Your task to perform on an android device: Open the Play Movies app and select the watchlist tab. Image 0: 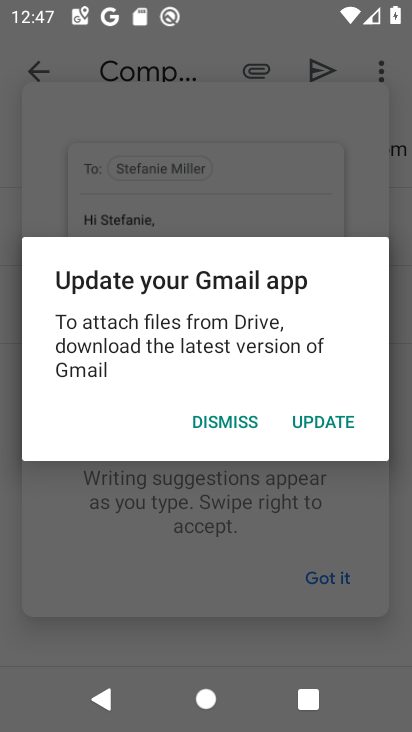
Step 0: drag from (271, 503) to (398, 282)
Your task to perform on an android device: Open the Play Movies app and select the watchlist tab. Image 1: 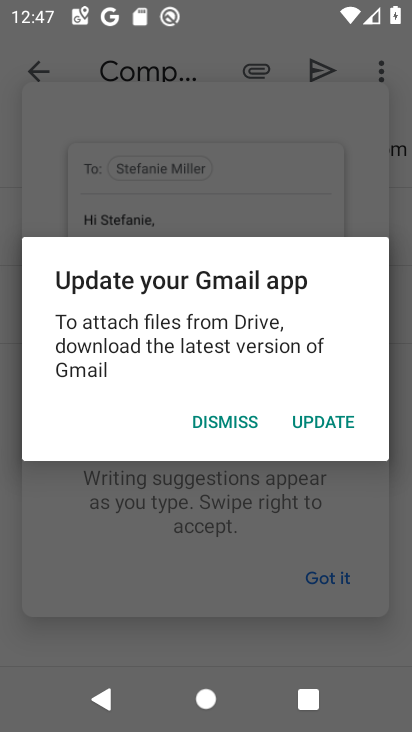
Step 1: press home button
Your task to perform on an android device: Open the Play Movies app and select the watchlist tab. Image 2: 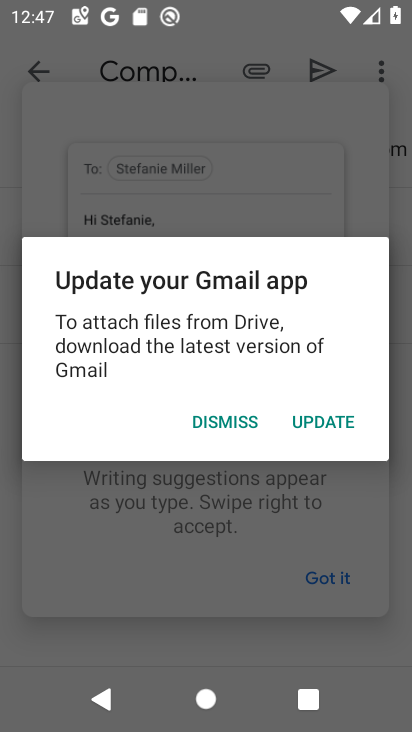
Step 2: drag from (398, 282) to (406, 520)
Your task to perform on an android device: Open the Play Movies app and select the watchlist tab. Image 3: 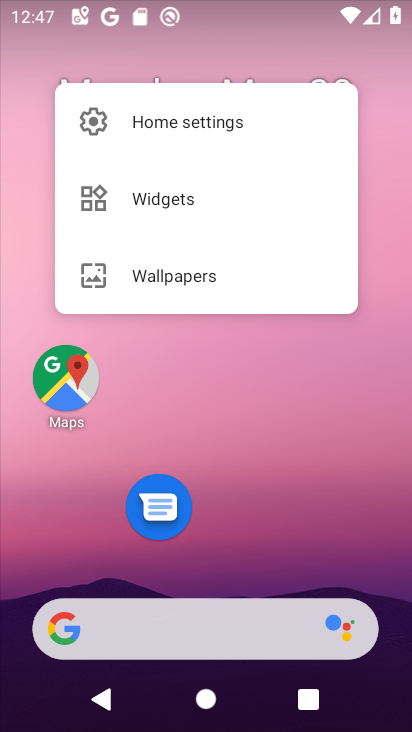
Step 3: click (297, 532)
Your task to perform on an android device: Open the Play Movies app and select the watchlist tab. Image 4: 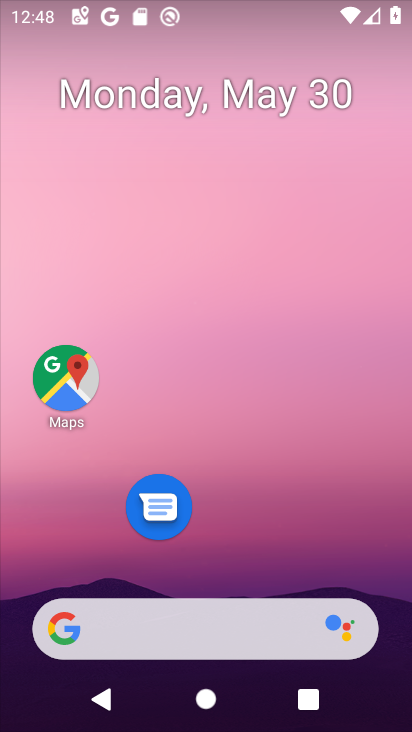
Step 4: drag from (297, 558) to (357, 133)
Your task to perform on an android device: Open the Play Movies app and select the watchlist tab. Image 5: 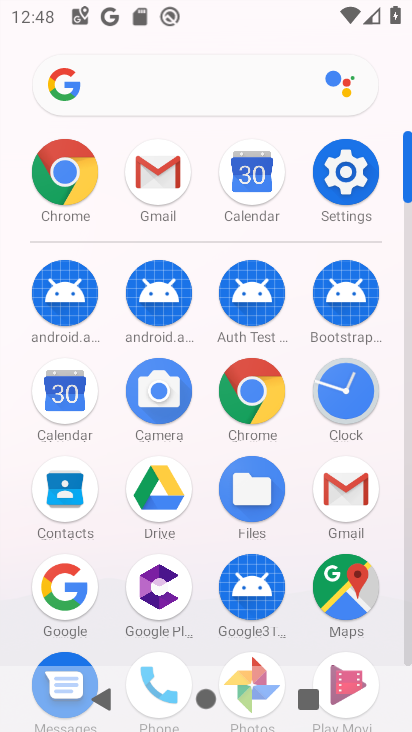
Step 5: drag from (296, 347) to (338, 76)
Your task to perform on an android device: Open the Play Movies app and select the watchlist tab. Image 6: 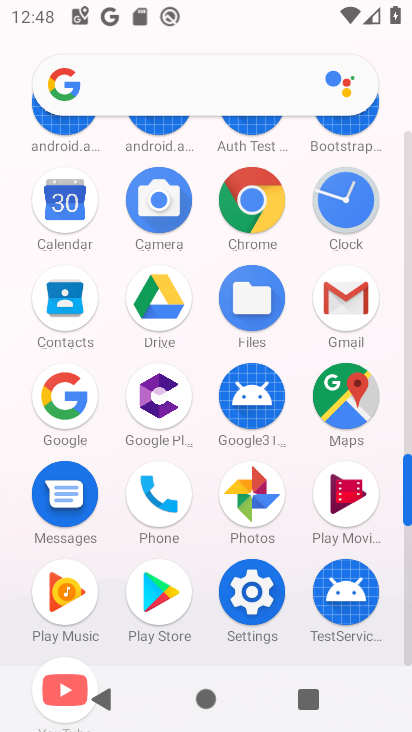
Step 6: click (349, 489)
Your task to perform on an android device: Open the Play Movies app and select the watchlist tab. Image 7: 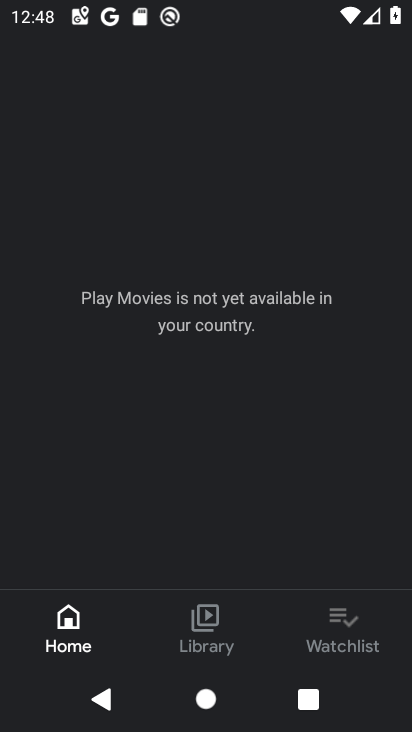
Step 7: click (346, 624)
Your task to perform on an android device: Open the Play Movies app and select the watchlist tab. Image 8: 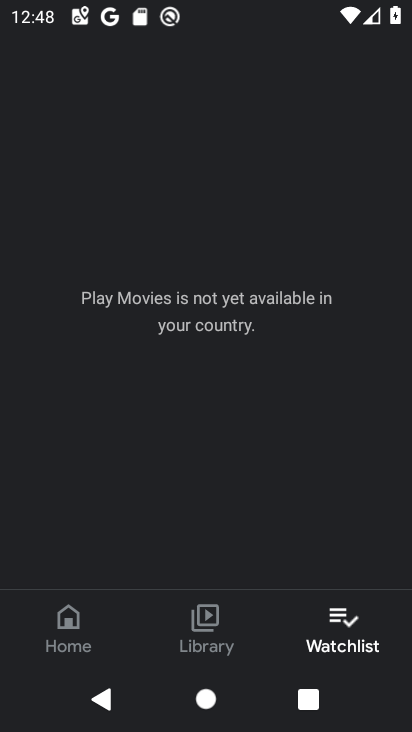
Step 8: task complete